Your task to perform on an android device: What's the news in China? Image 0: 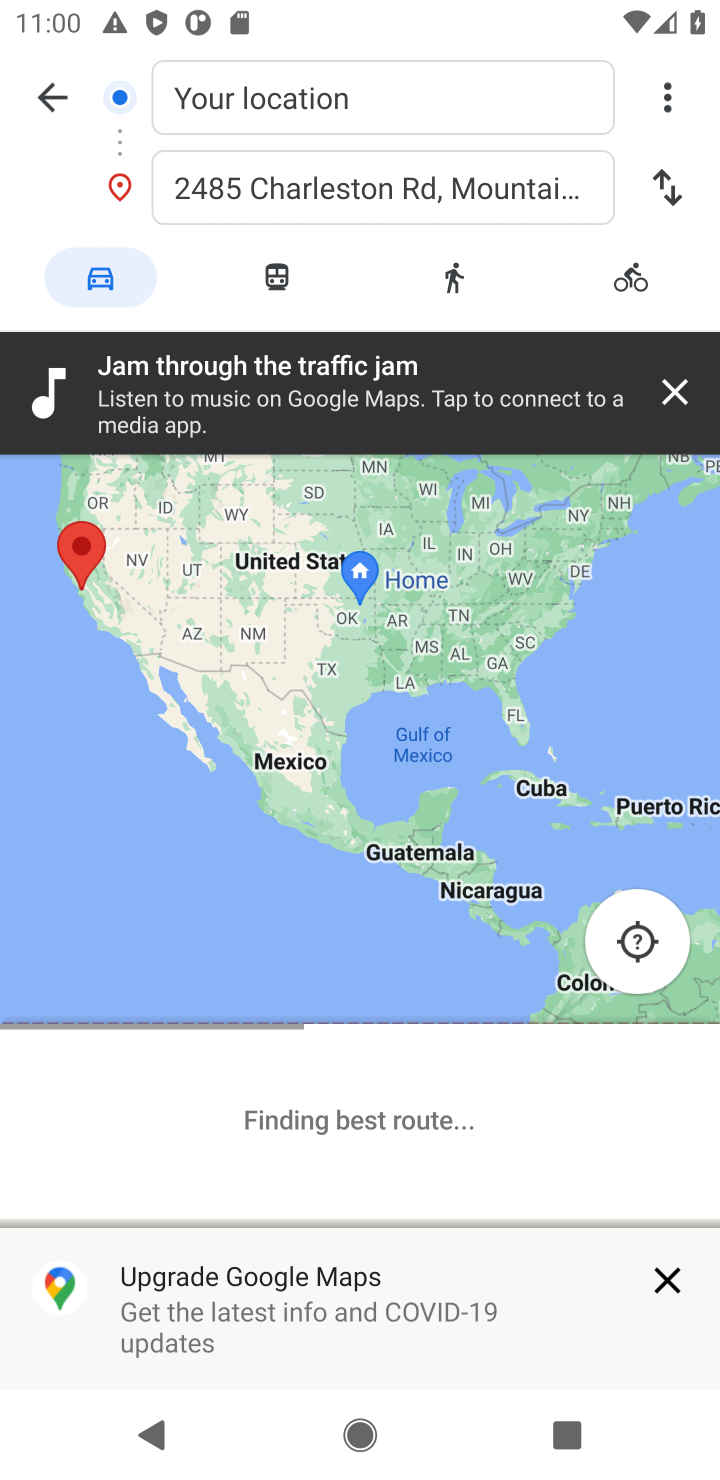
Step 0: press home button
Your task to perform on an android device: What's the news in China? Image 1: 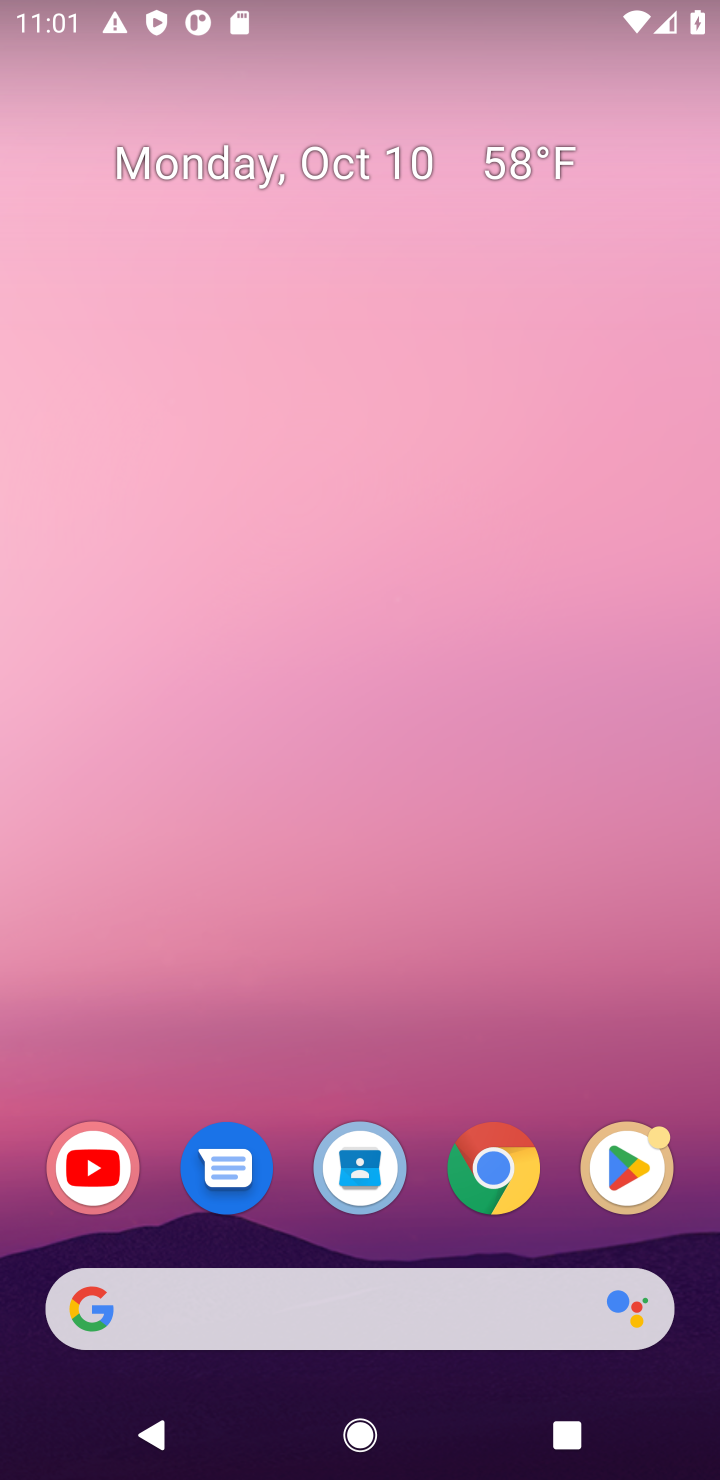
Step 1: click (310, 1309)
Your task to perform on an android device: What's the news in China? Image 2: 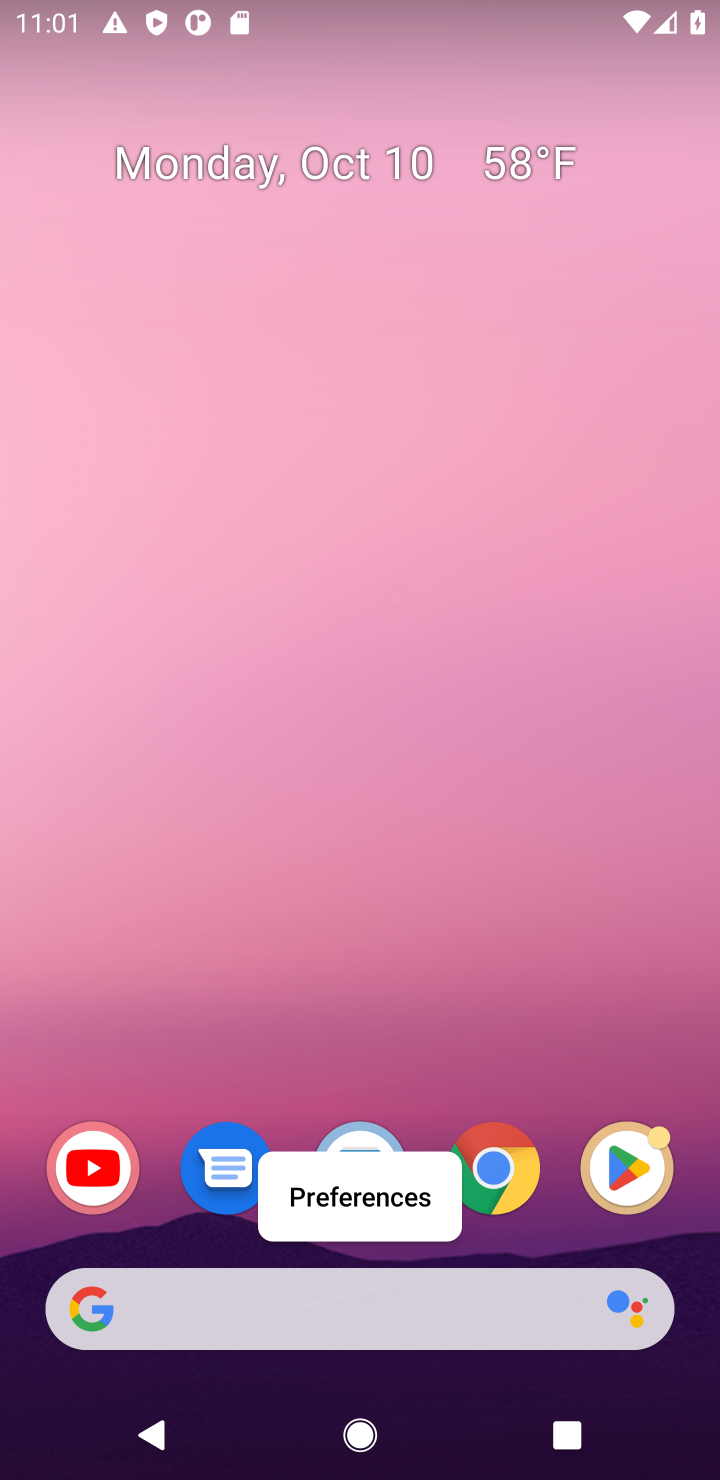
Step 2: click (312, 1298)
Your task to perform on an android device: What's the news in China? Image 3: 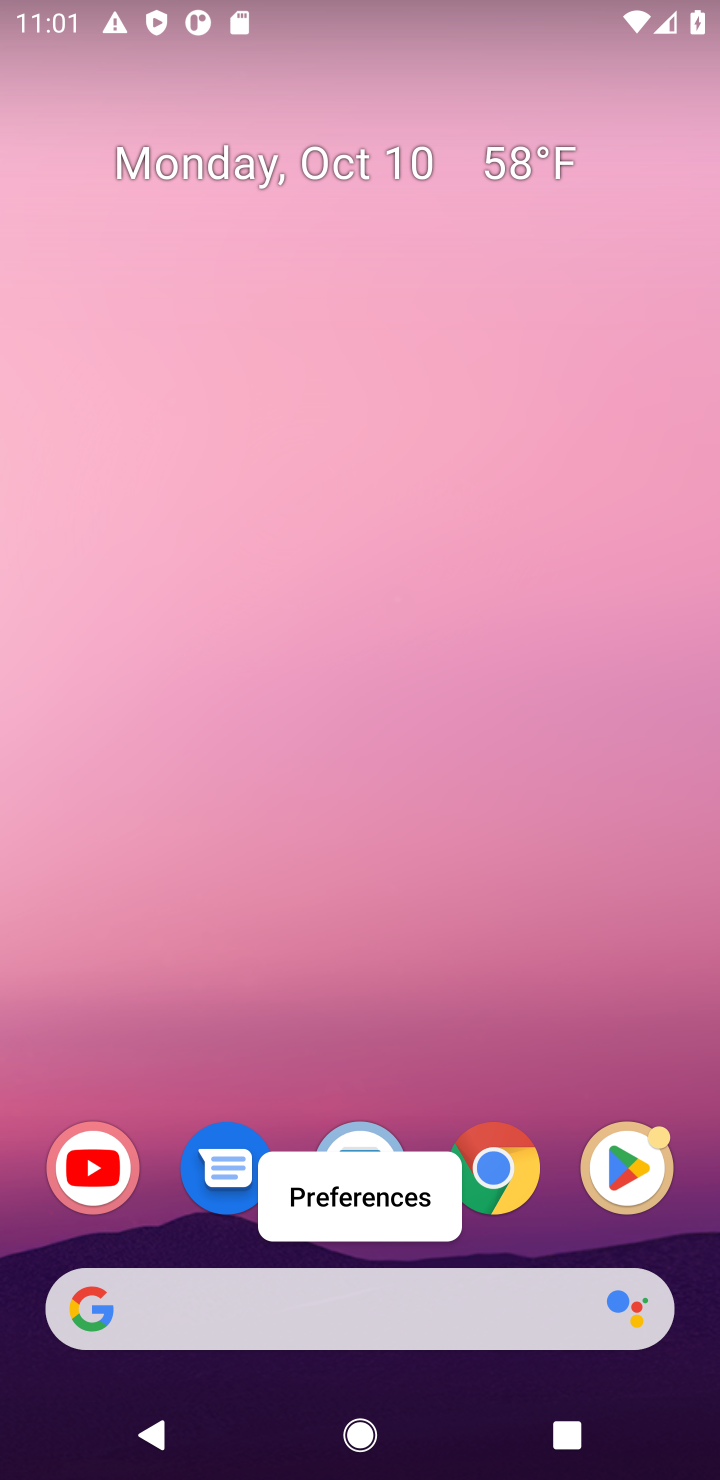
Step 3: click (227, 1317)
Your task to perform on an android device: What's the news in China? Image 4: 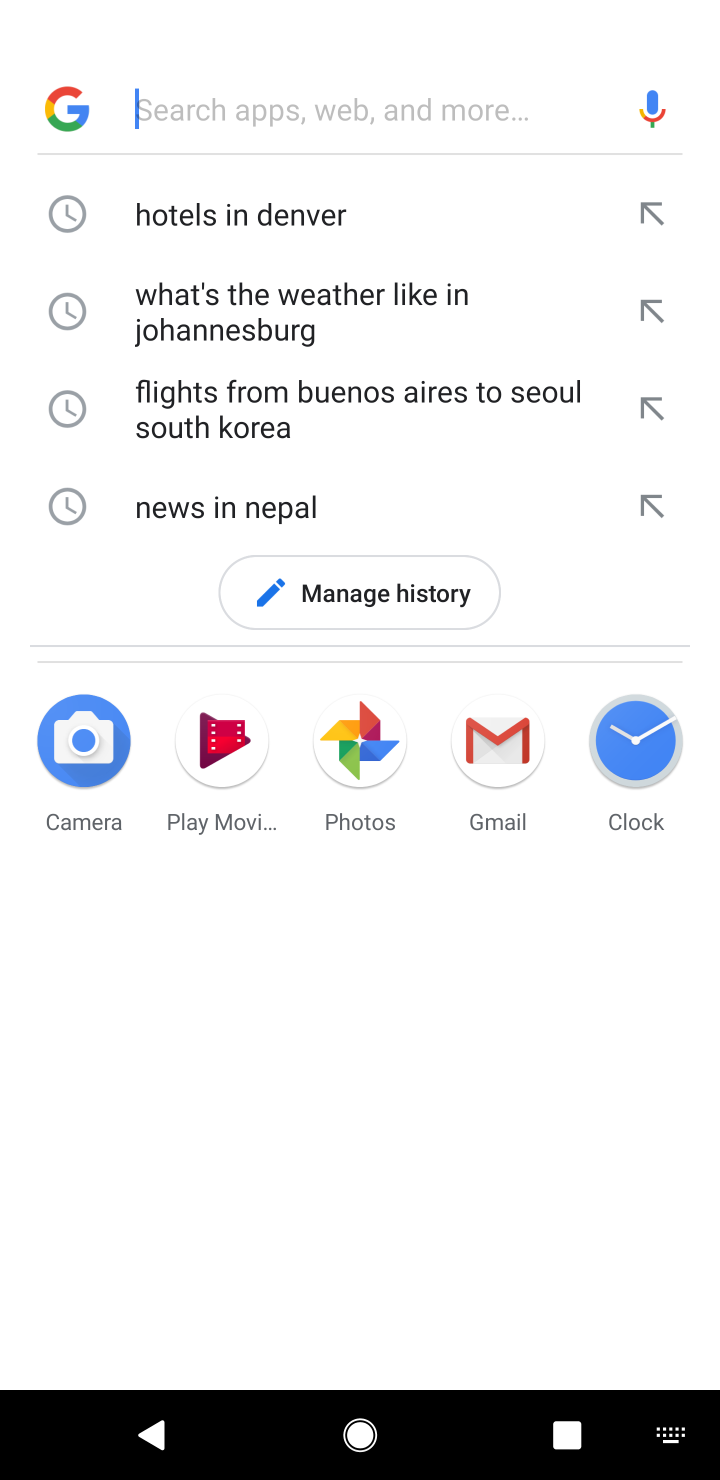
Step 4: type "What's the news in China?"
Your task to perform on an android device: What's the news in China? Image 5: 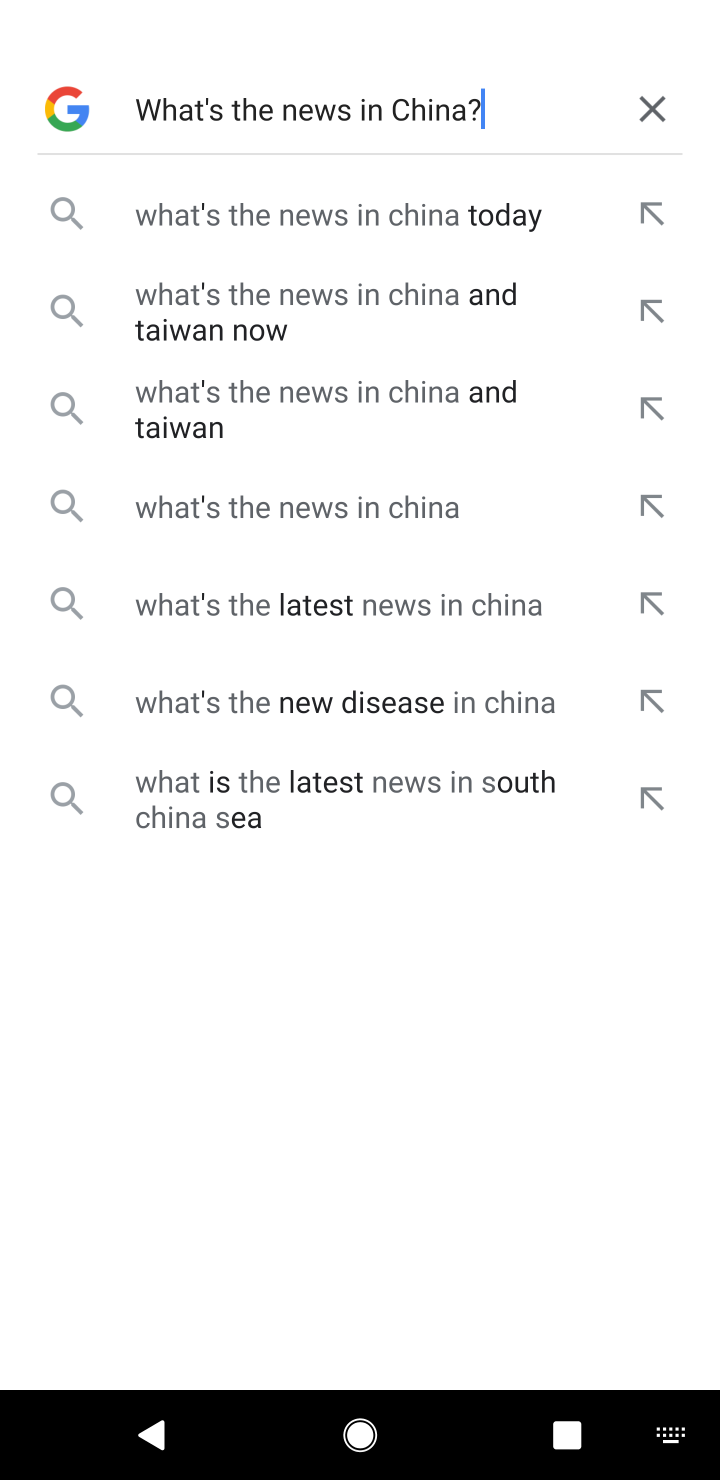
Step 5: click (358, 504)
Your task to perform on an android device: What's the news in China? Image 6: 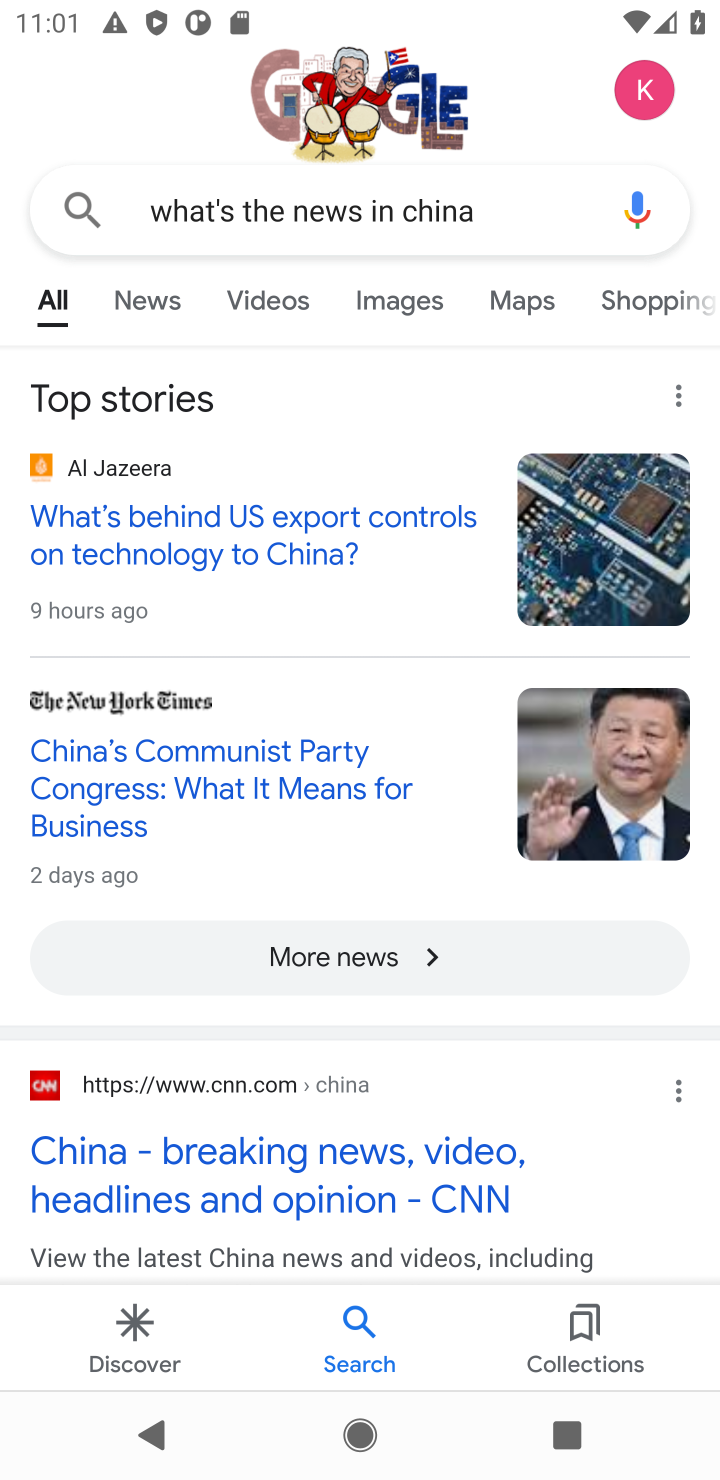
Step 6: click (149, 309)
Your task to perform on an android device: What's the news in China? Image 7: 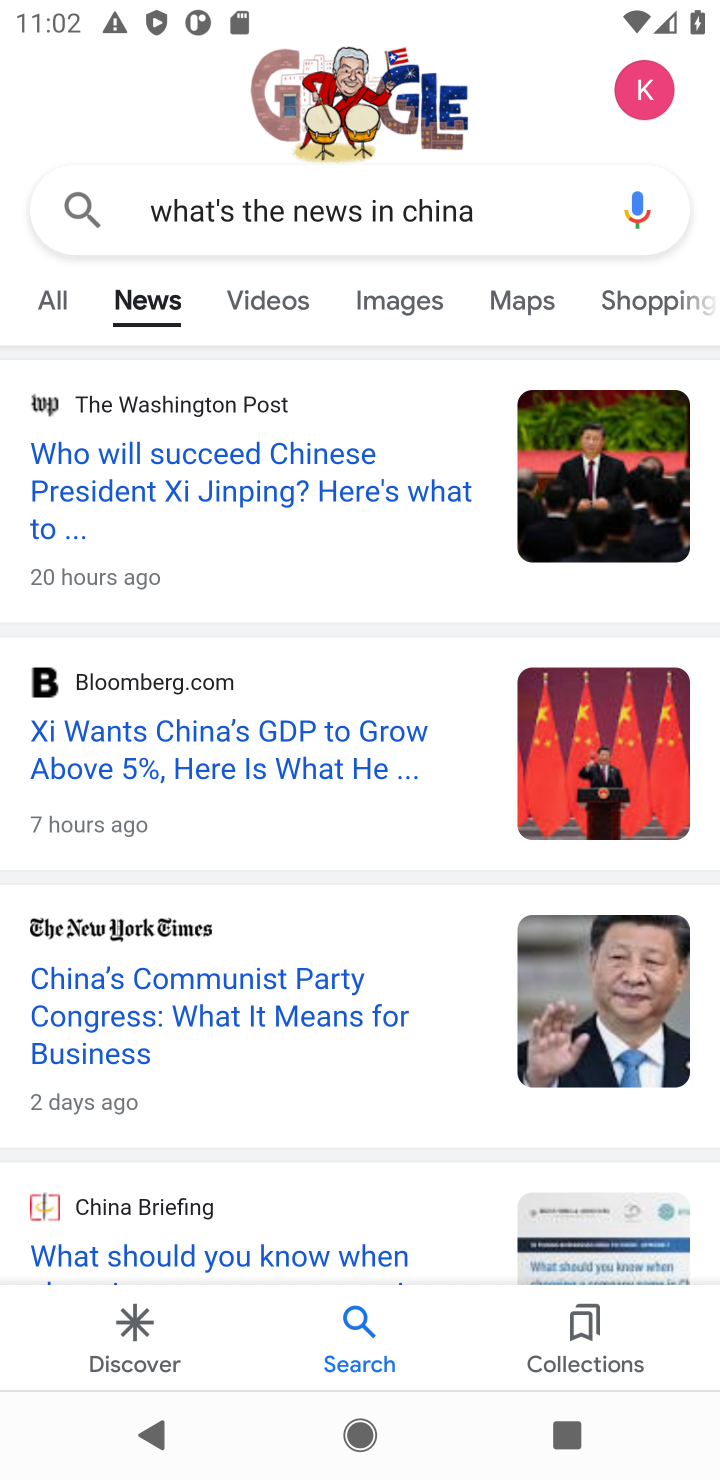
Step 7: task complete